Your task to perform on an android device: Go to Google maps Image 0: 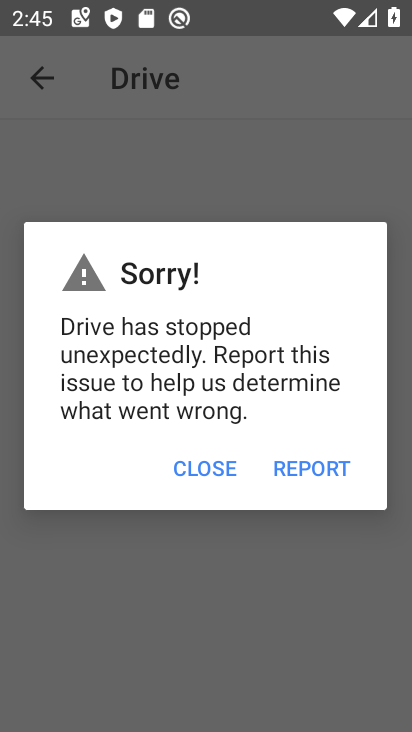
Step 0: press home button
Your task to perform on an android device: Go to Google maps Image 1: 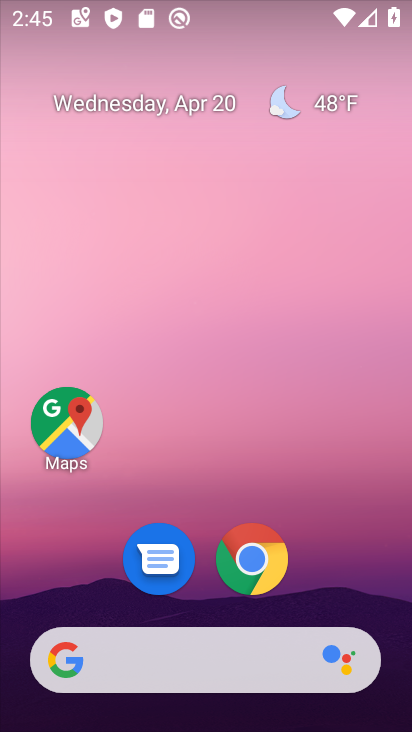
Step 1: drag from (257, 616) to (264, 81)
Your task to perform on an android device: Go to Google maps Image 2: 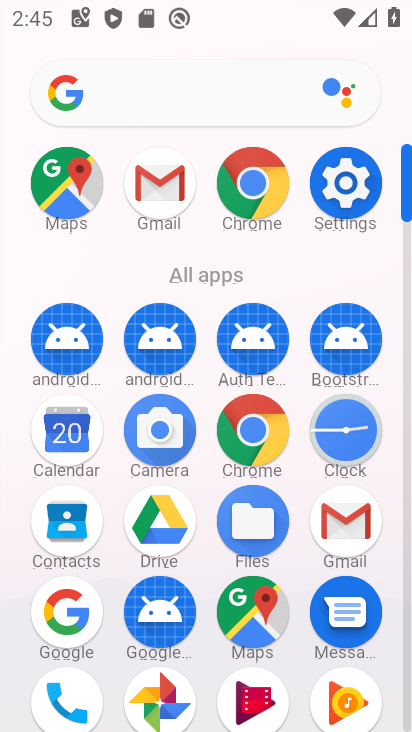
Step 2: click (247, 428)
Your task to perform on an android device: Go to Google maps Image 3: 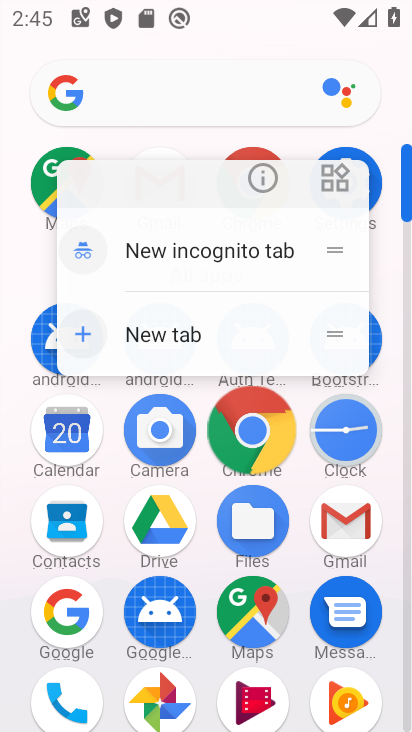
Step 3: click (93, 174)
Your task to perform on an android device: Go to Google maps Image 4: 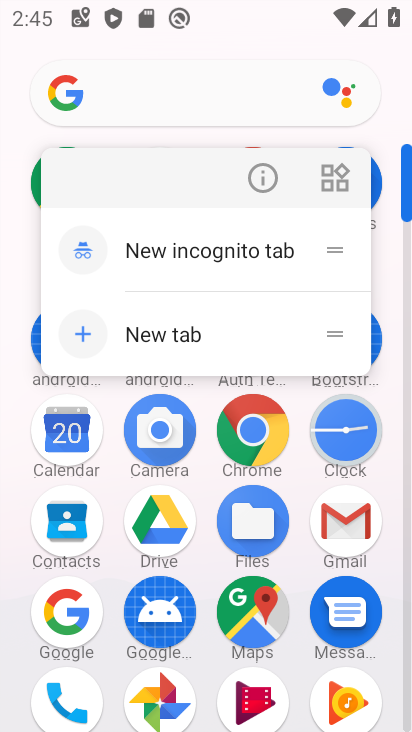
Step 4: click (34, 179)
Your task to perform on an android device: Go to Google maps Image 5: 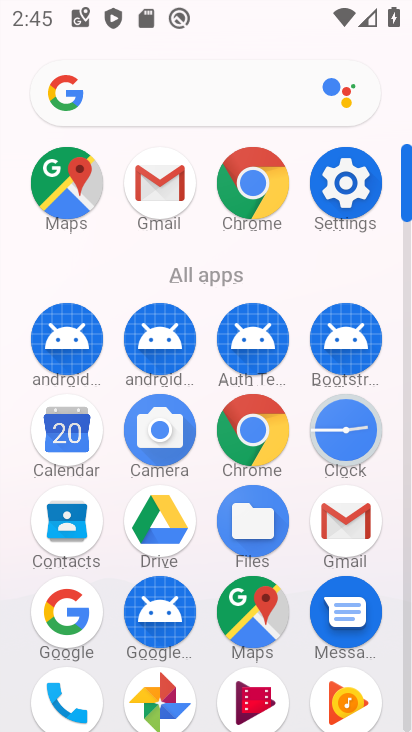
Step 5: click (61, 177)
Your task to perform on an android device: Go to Google maps Image 6: 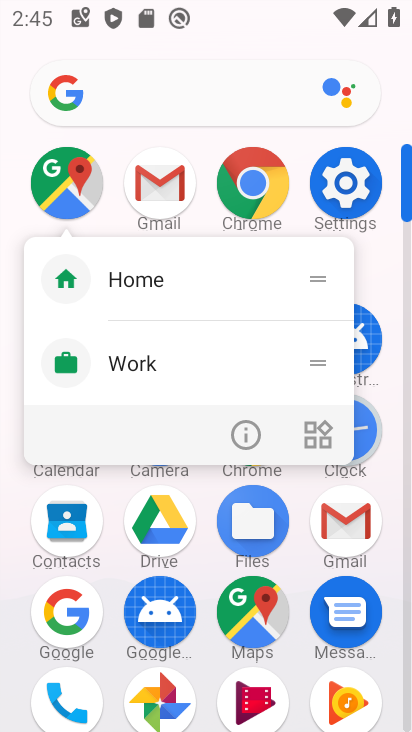
Step 6: click (61, 178)
Your task to perform on an android device: Go to Google maps Image 7: 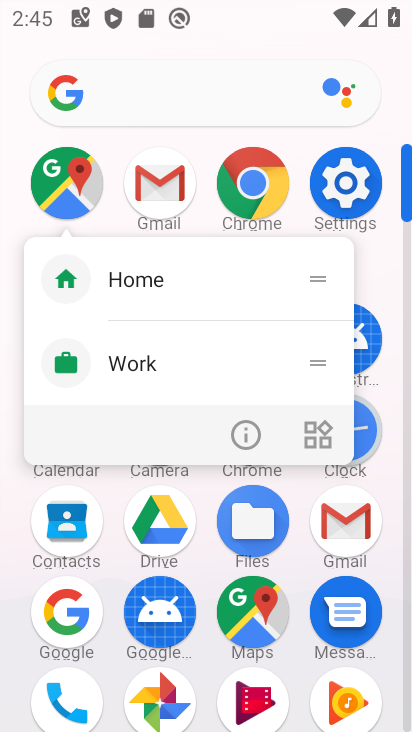
Step 7: click (61, 178)
Your task to perform on an android device: Go to Google maps Image 8: 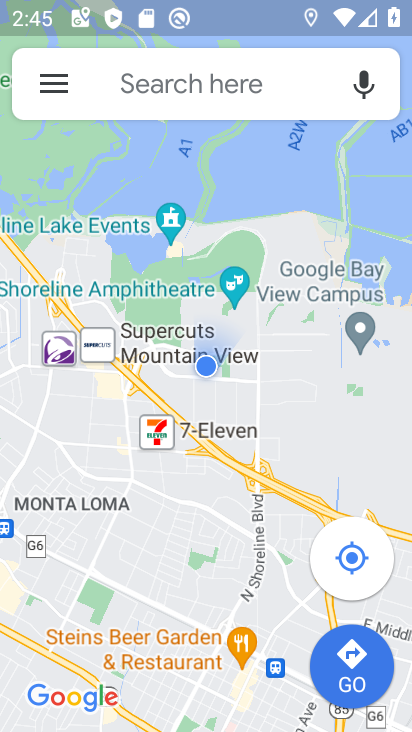
Step 8: click (342, 556)
Your task to perform on an android device: Go to Google maps Image 9: 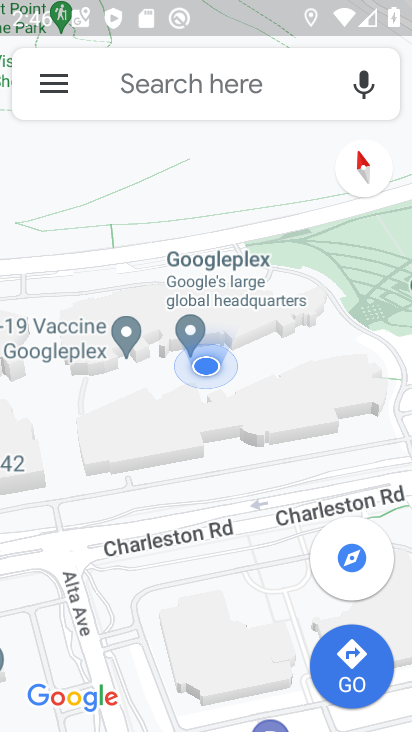
Step 9: click (344, 552)
Your task to perform on an android device: Go to Google maps Image 10: 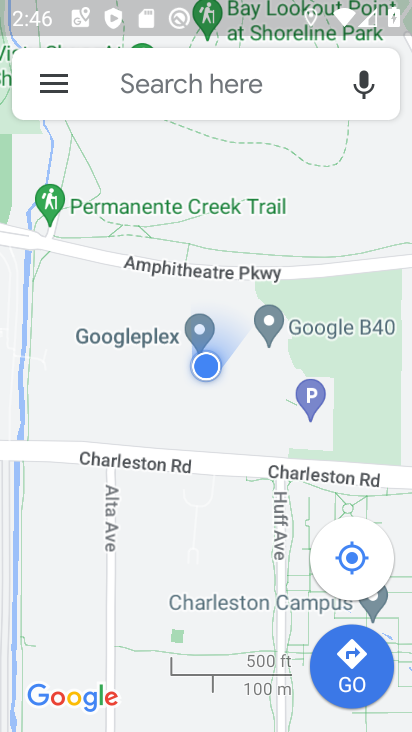
Step 10: task complete